Your task to perform on an android device: turn on the 12-hour format for clock Image 0: 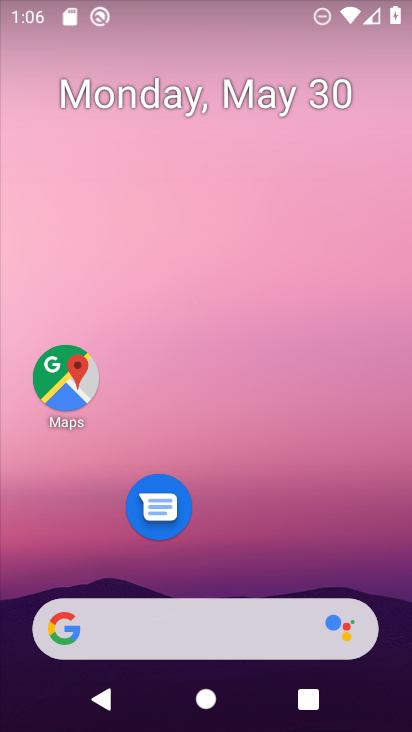
Step 0: drag from (257, 549) to (275, 62)
Your task to perform on an android device: turn on the 12-hour format for clock Image 1: 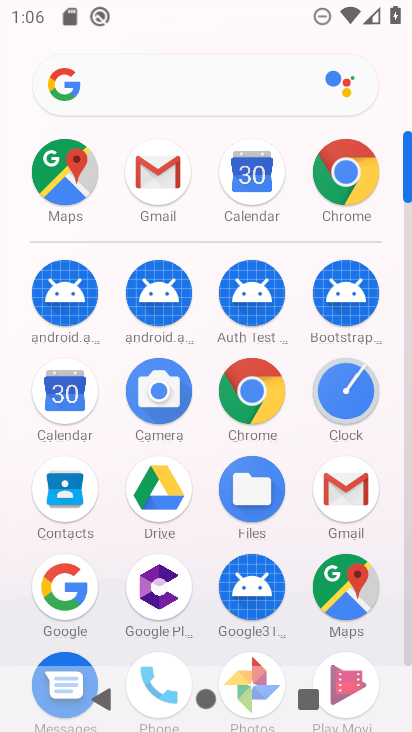
Step 1: click (346, 396)
Your task to perform on an android device: turn on the 12-hour format for clock Image 2: 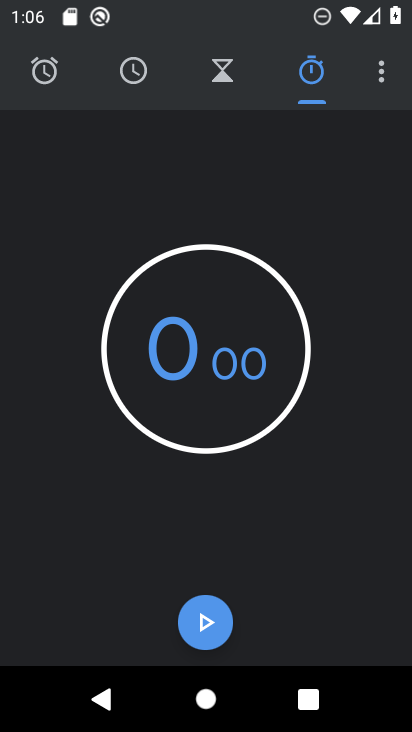
Step 2: click (379, 67)
Your task to perform on an android device: turn on the 12-hour format for clock Image 3: 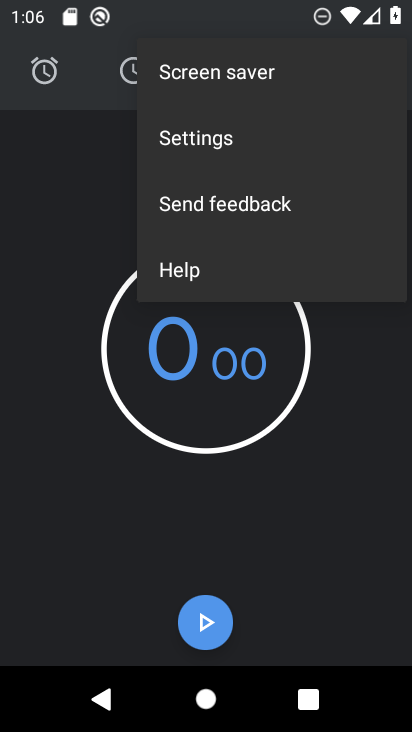
Step 3: click (189, 148)
Your task to perform on an android device: turn on the 12-hour format for clock Image 4: 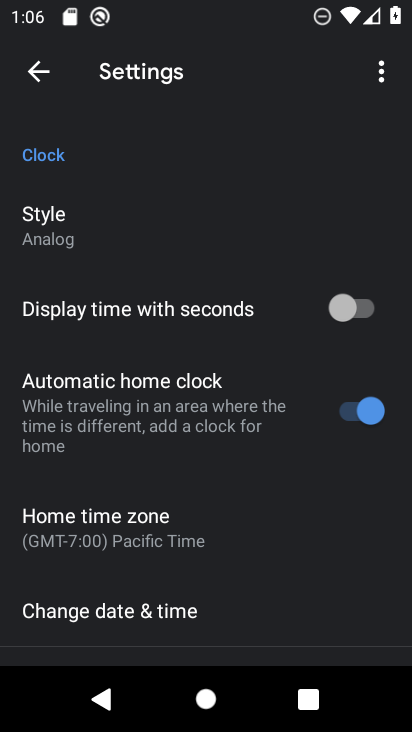
Step 4: drag from (286, 600) to (290, 206)
Your task to perform on an android device: turn on the 12-hour format for clock Image 5: 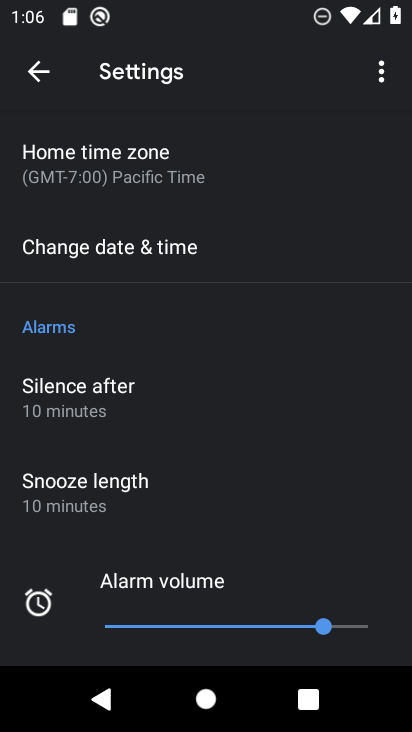
Step 5: click (148, 258)
Your task to perform on an android device: turn on the 12-hour format for clock Image 6: 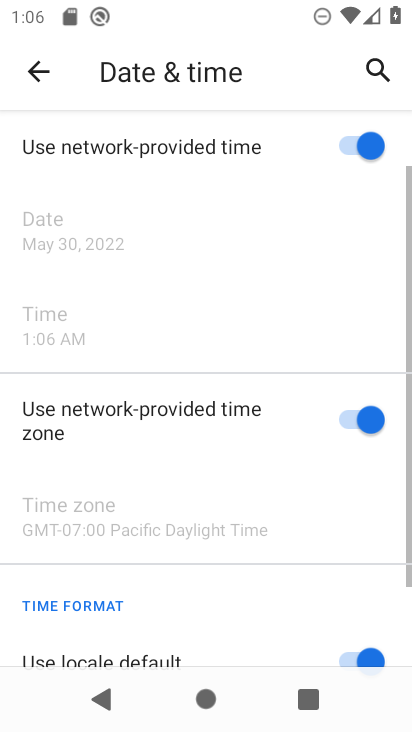
Step 6: task complete